Your task to perform on an android device: Do I have any events this weekend? Image 0: 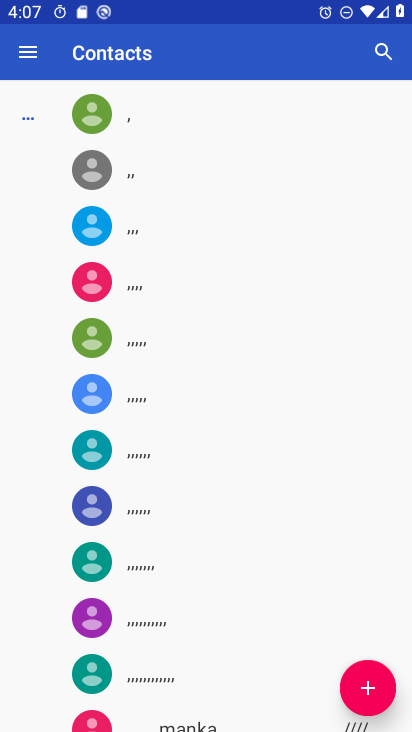
Step 0: press home button
Your task to perform on an android device: Do I have any events this weekend? Image 1: 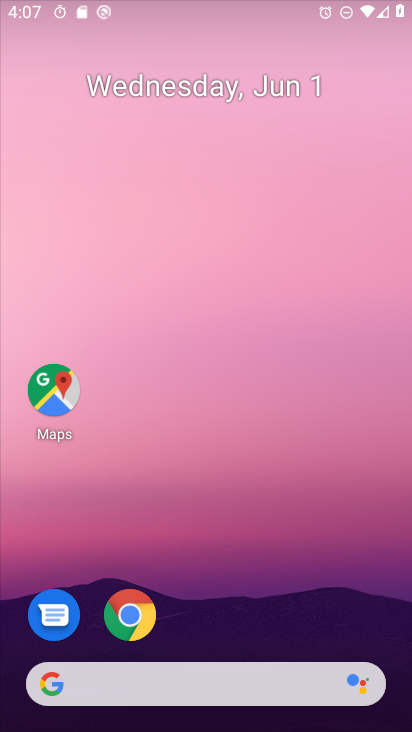
Step 1: drag from (288, 687) to (245, 32)
Your task to perform on an android device: Do I have any events this weekend? Image 2: 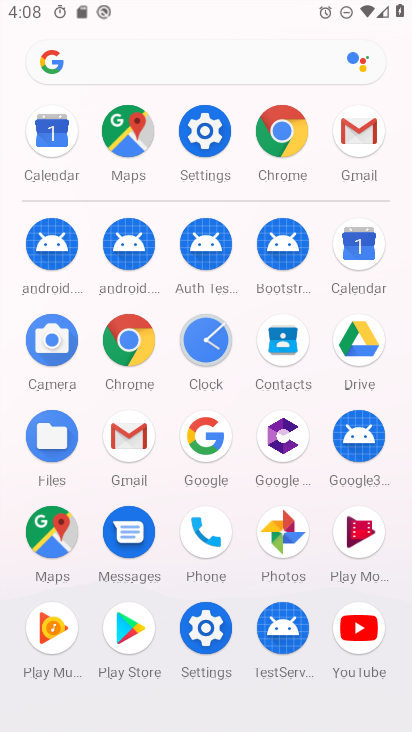
Step 2: click (381, 263)
Your task to perform on an android device: Do I have any events this weekend? Image 3: 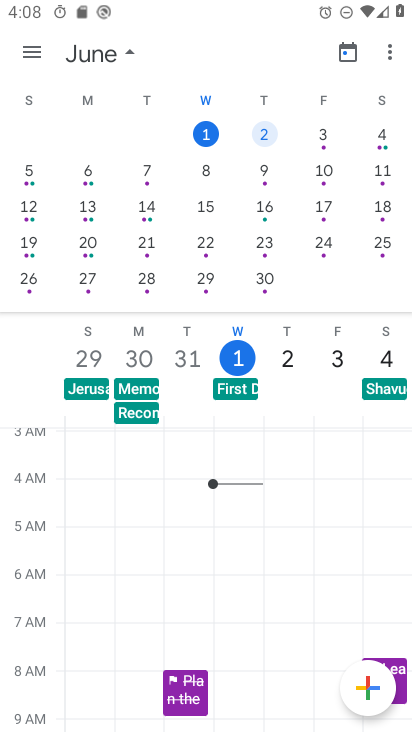
Step 3: click (379, 137)
Your task to perform on an android device: Do I have any events this weekend? Image 4: 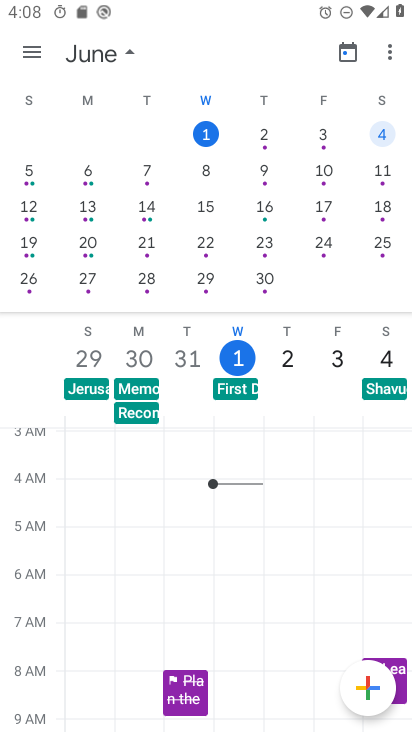
Step 4: task complete